Your task to perform on an android device: check battery use Image 0: 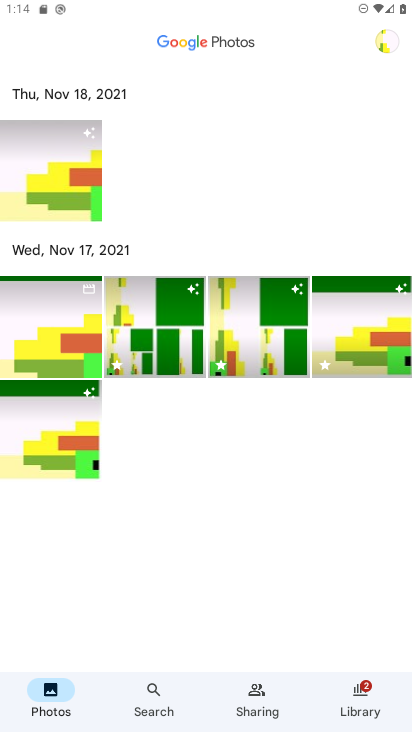
Step 0: drag from (129, 506) to (220, 173)
Your task to perform on an android device: check battery use Image 1: 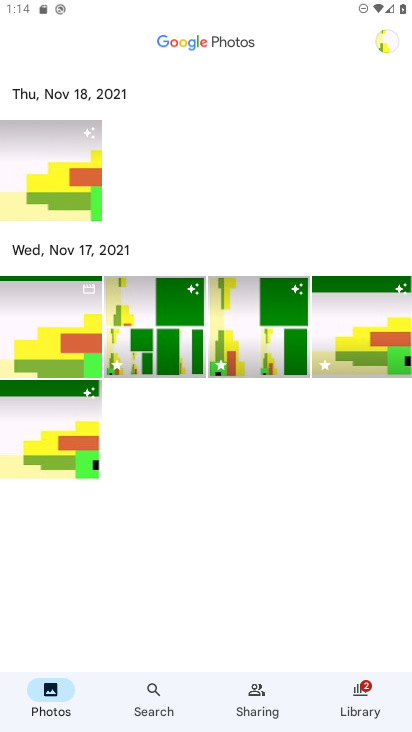
Step 1: press home button
Your task to perform on an android device: check battery use Image 2: 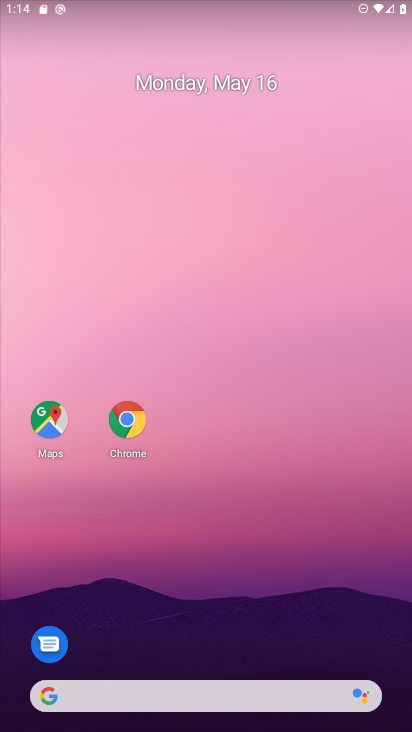
Step 2: drag from (248, 526) to (348, 138)
Your task to perform on an android device: check battery use Image 3: 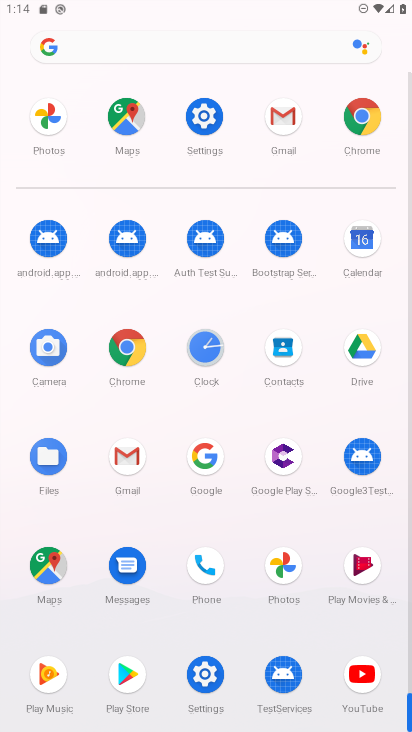
Step 3: click (207, 133)
Your task to perform on an android device: check battery use Image 4: 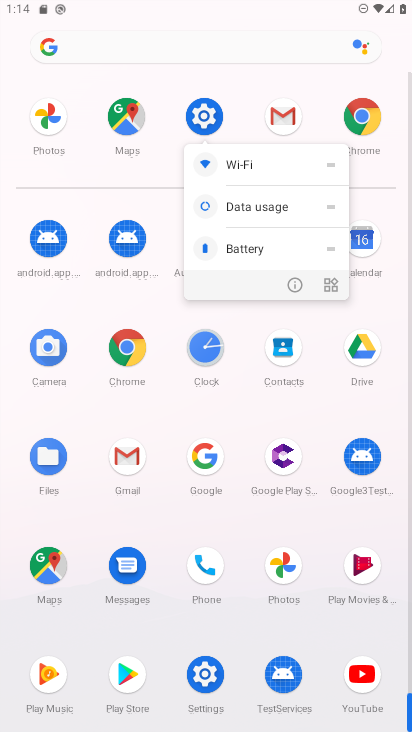
Step 4: click (256, 252)
Your task to perform on an android device: check battery use Image 5: 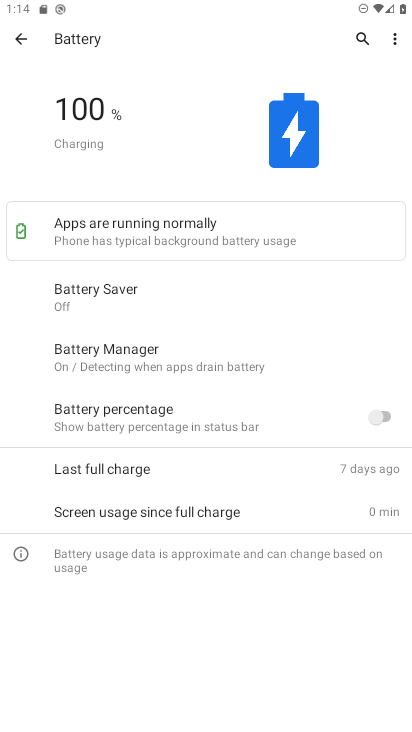
Step 5: click (404, 34)
Your task to perform on an android device: check battery use Image 6: 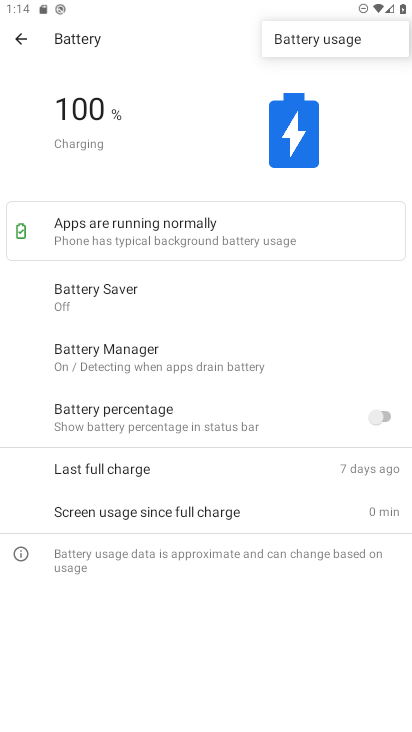
Step 6: click (316, 34)
Your task to perform on an android device: check battery use Image 7: 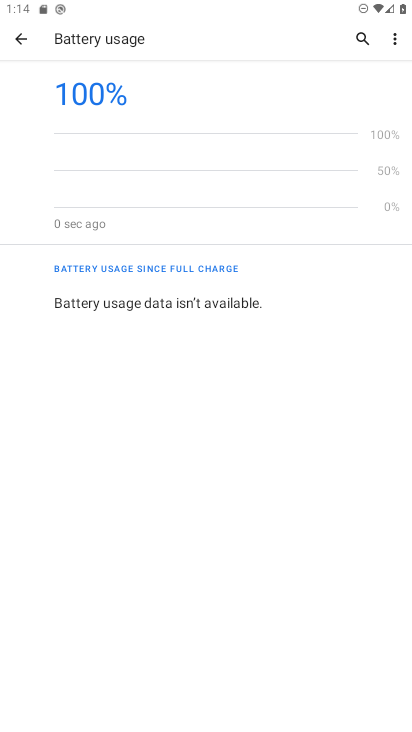
Step 7: task complete